Your task to perform on an android device: open chrome and create a bookmark for the current page Image 0: 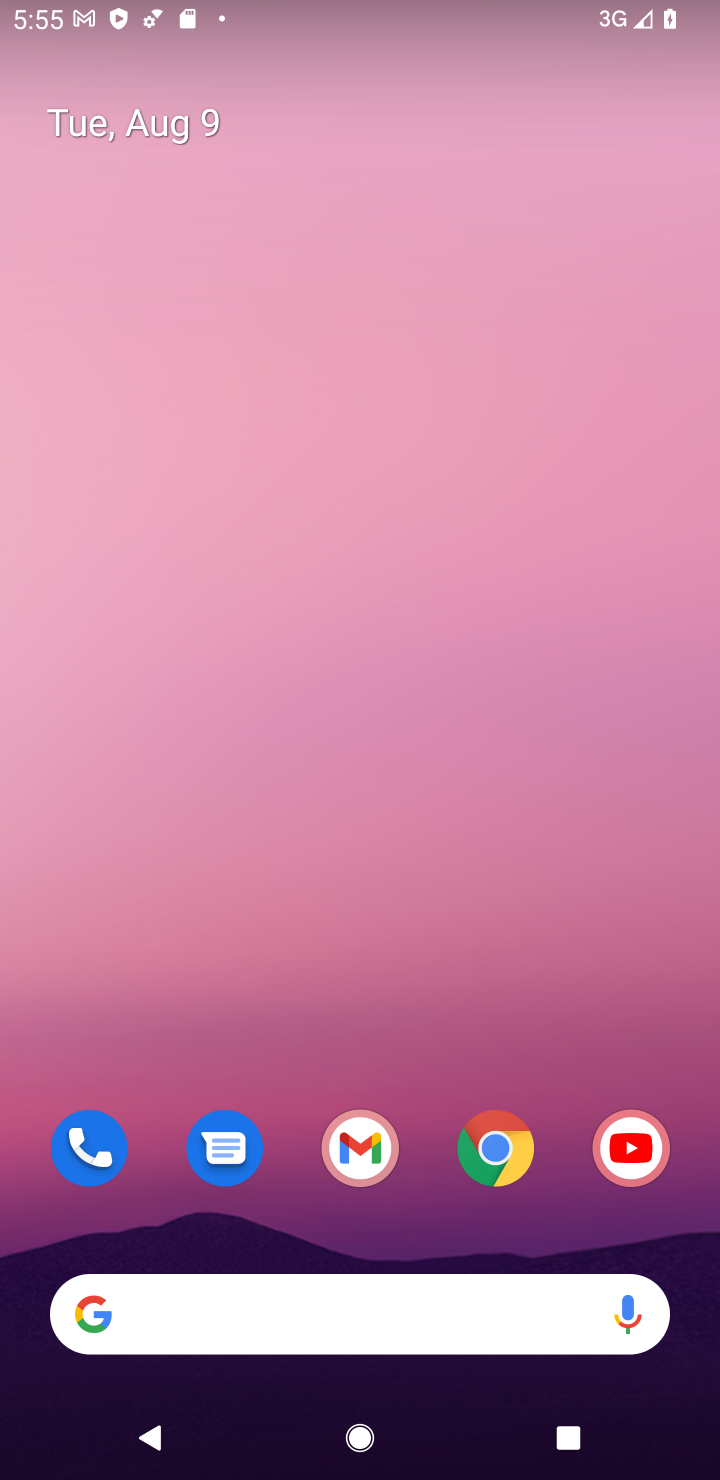
Step 0: click (506, 1166)
Your task to perform on an android device: open chrome and create a bookmark for the current page Image 1: 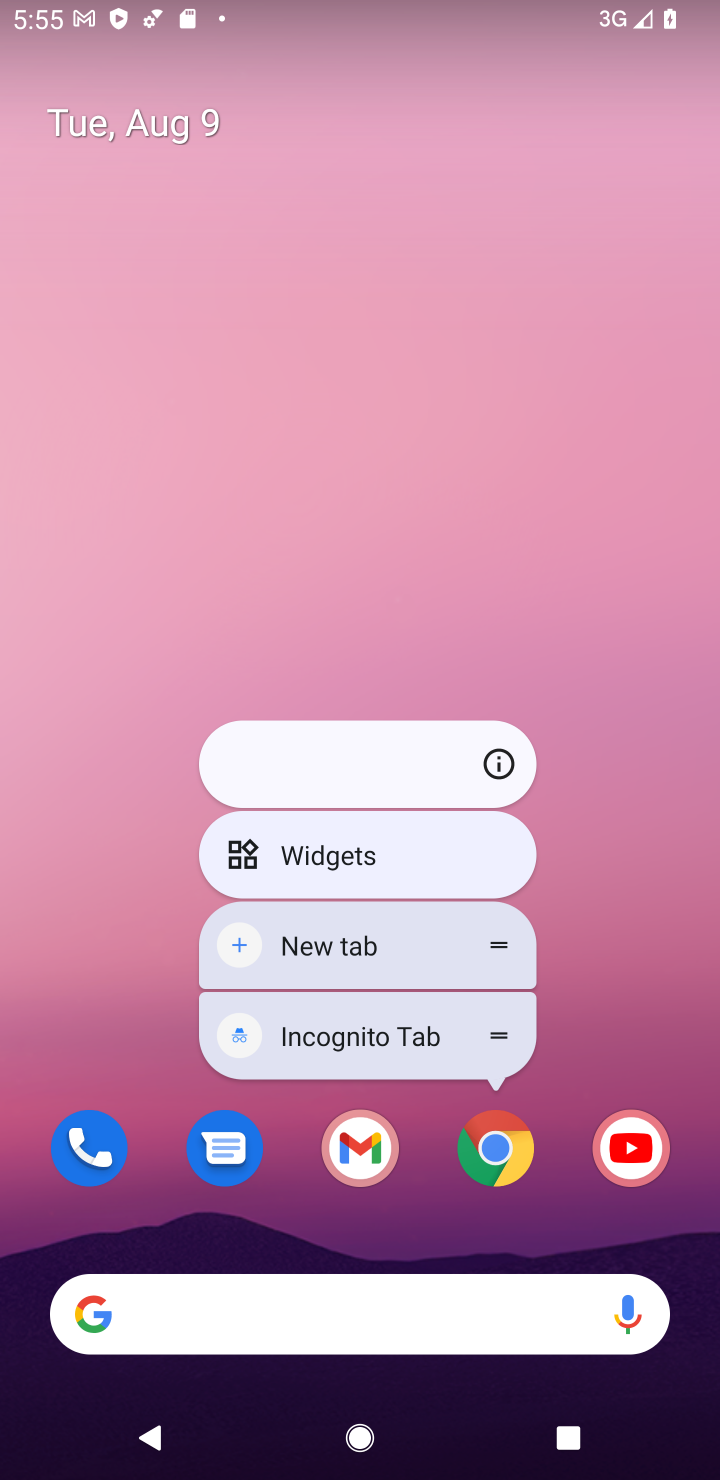
Step 1: click (485, 1152)
Your task to perform on an android device: open chrome and create a bookmark for the current page Image 2: 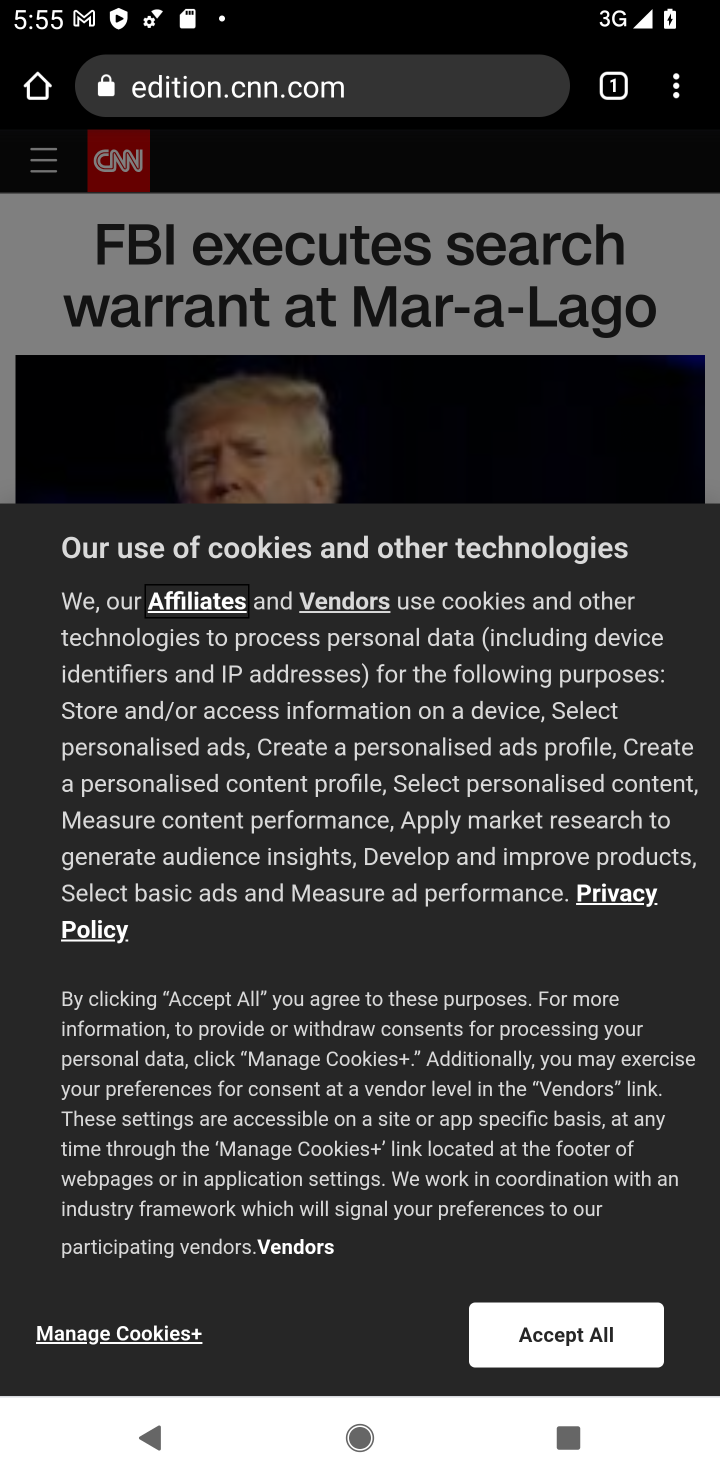
Step 2: click (679, 90)
Your task to perform on an android device: open chrome and create a bookmark for the current page Image 3: 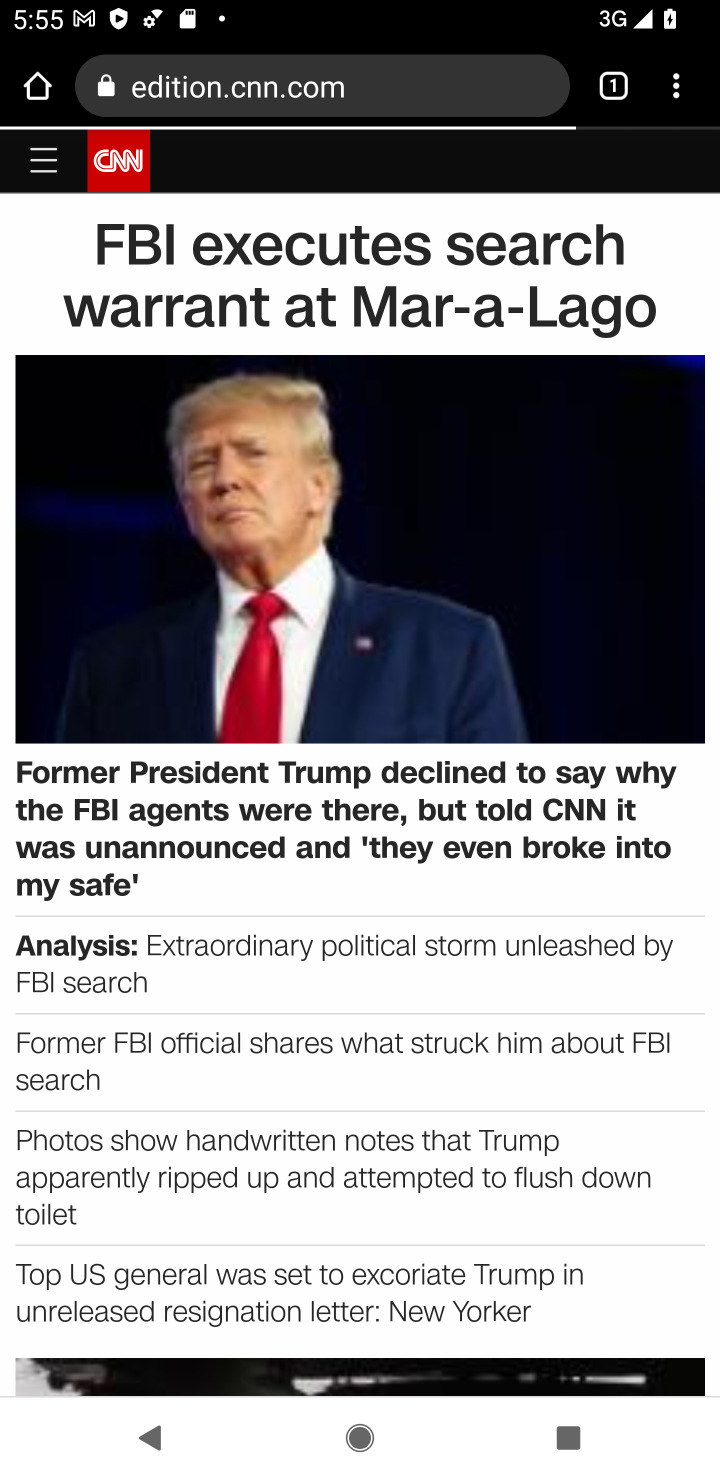
Step 3: click (666, 106)
Your task to perform on an android device: open chrome and create a bookmark for the current page Image 4: 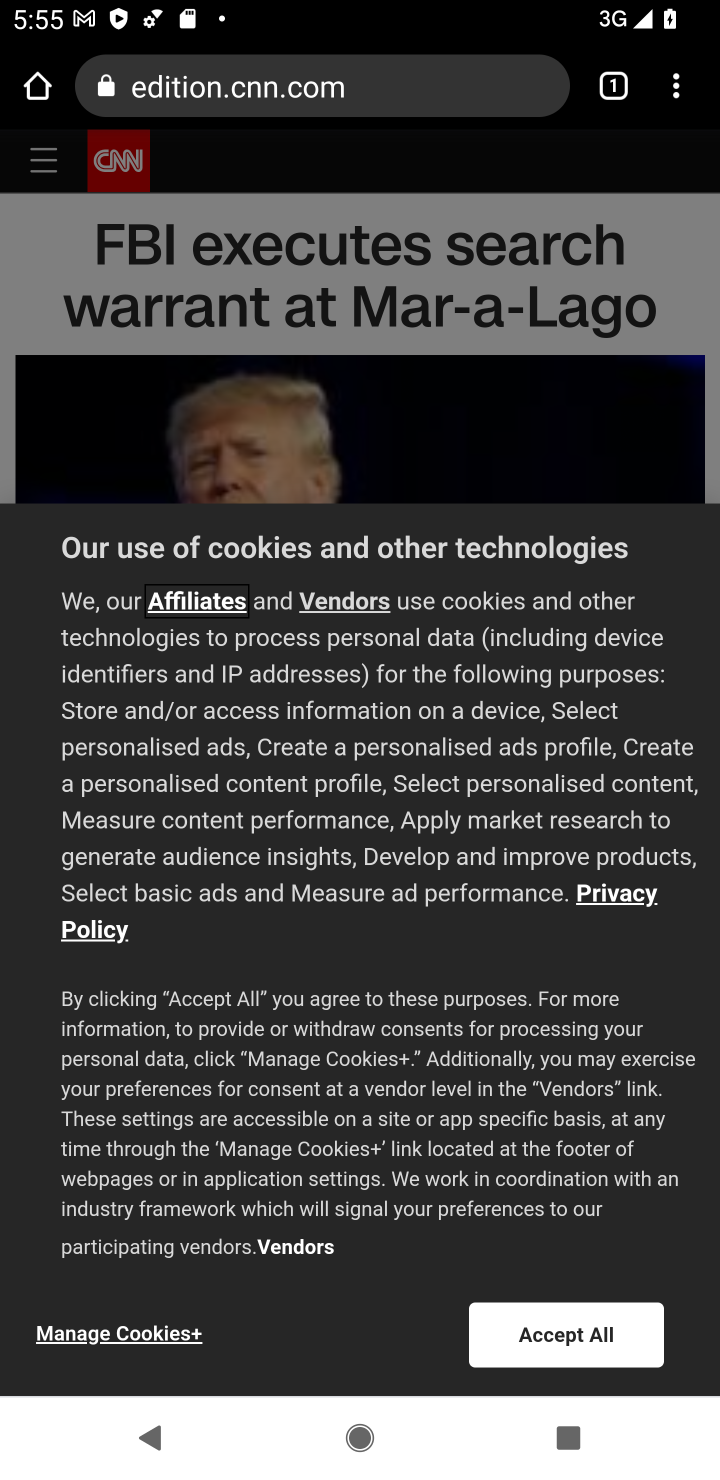
Step 4: click (671, 102)
Your task to perform on an android device: open chrome and create a bookmark for the current page Image 5: 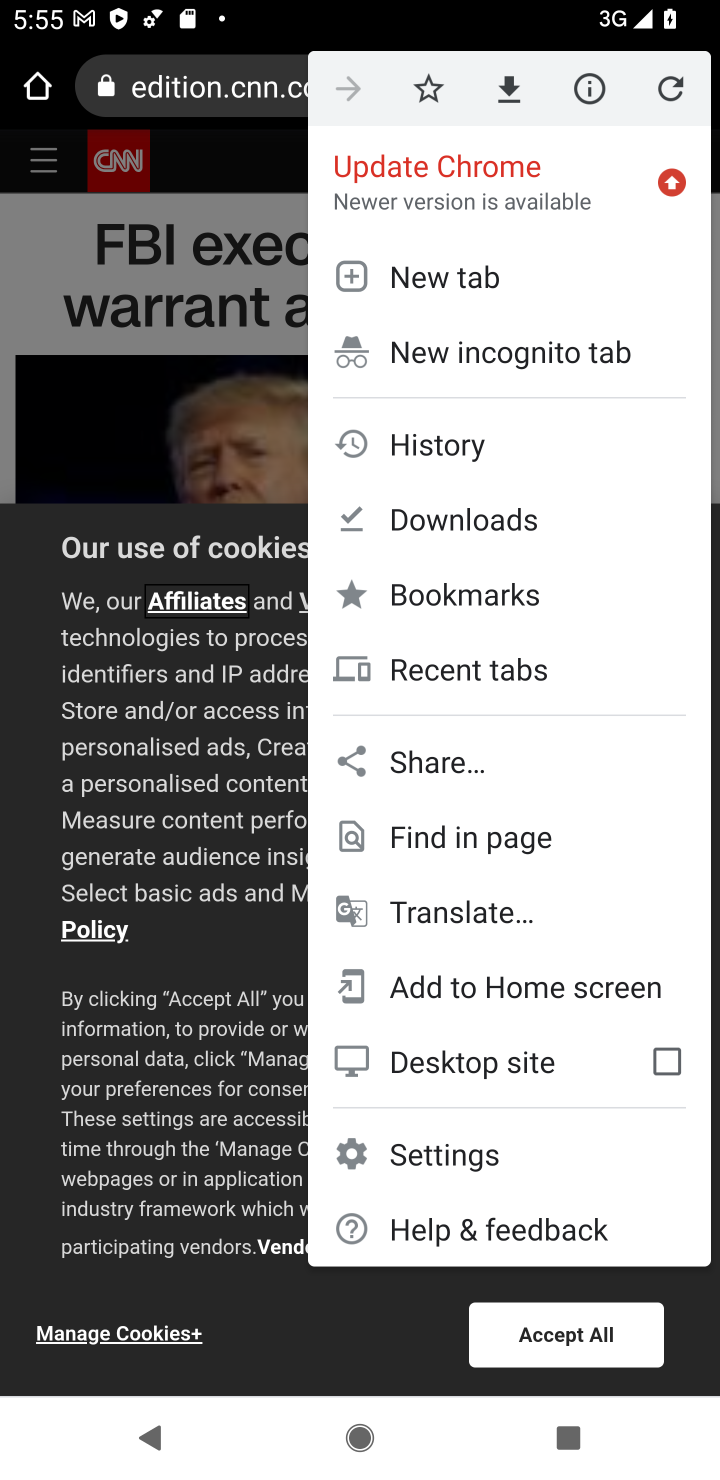
Step 5: click (418, 84)
Your task to perform on an android device: open chrome and create a bookmark for the current page Image 6: 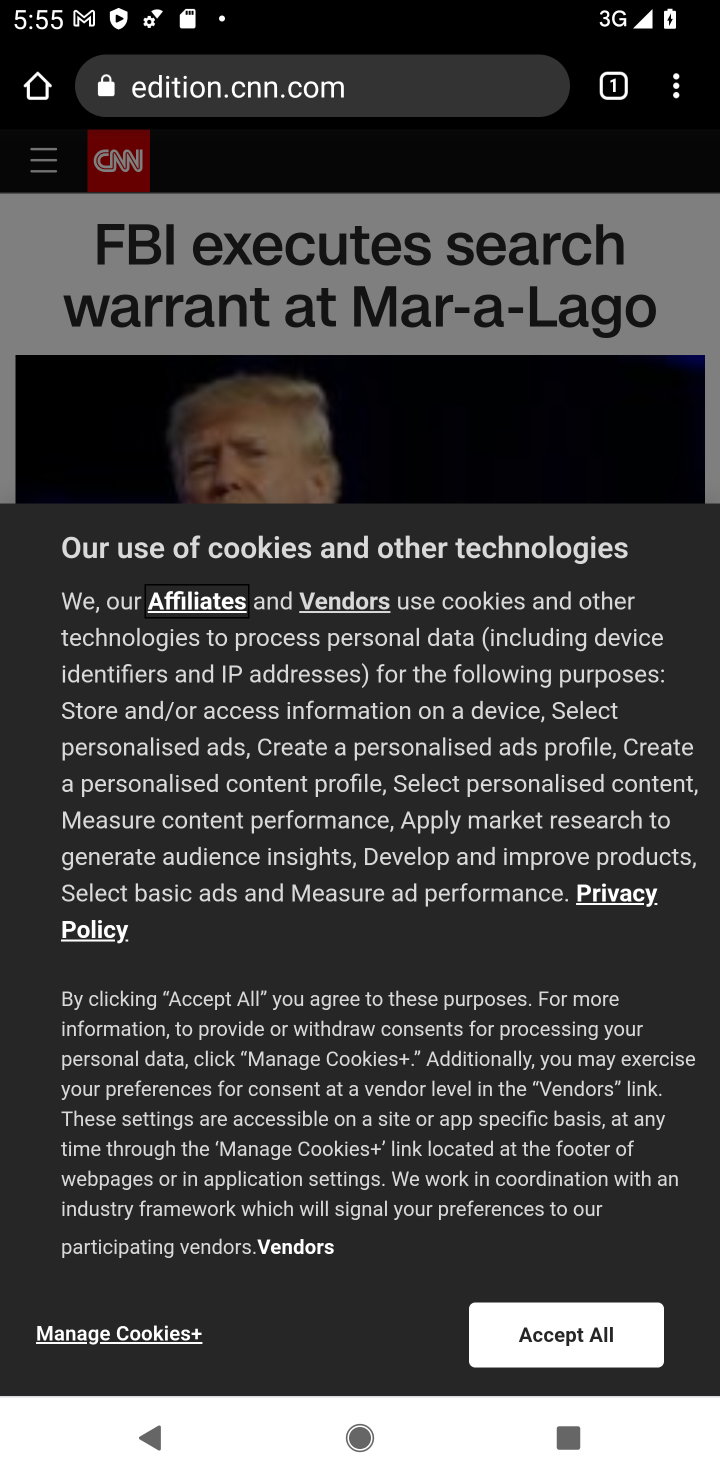
Step 6: task complete